Your task to perform on an android device: Open the stopwatch Image 0: 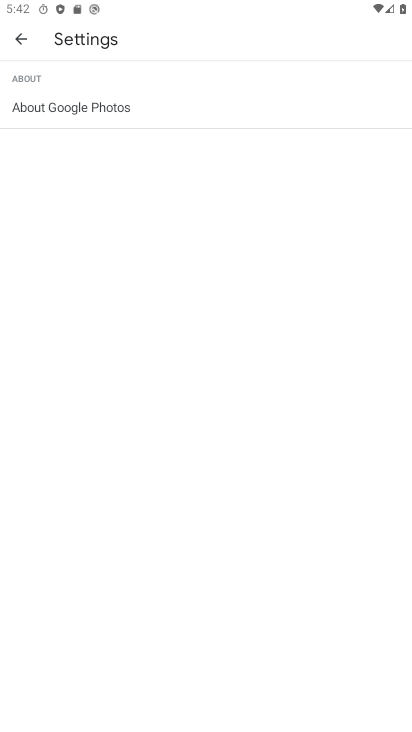
Step 0: press home button
Your task to perform on an android device: Open the stopwatch Image 1: 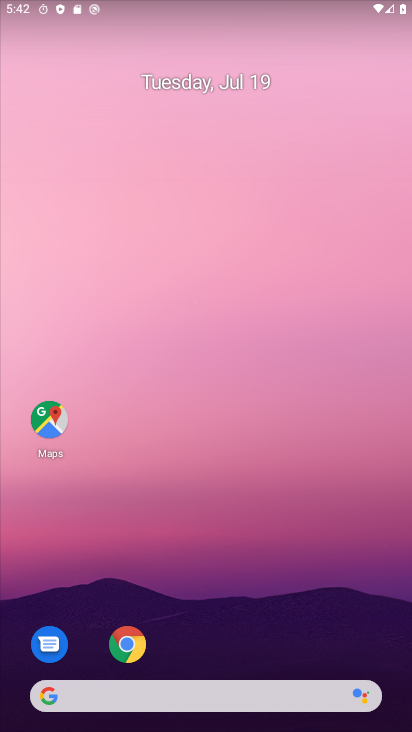
Step 1: drag from (207, 623) to (182, 32)
Your task to perform on an android device: Open the stopwatch Image 2: 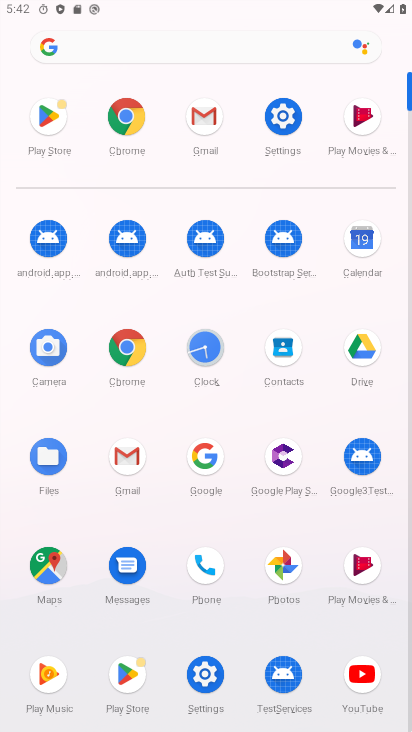
Step 2: click (209, 359)
Your task to perform on an android device: Open the stopwatch Image 3: 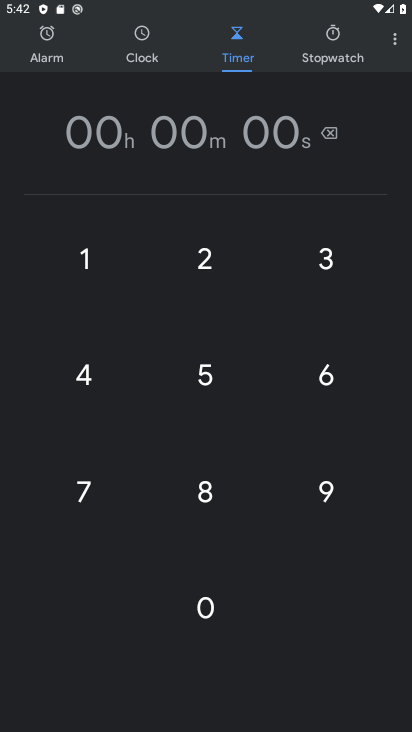
Step 3: click (339, 34)
Your task to perform on an android device: Open the stopwatch Image 4: 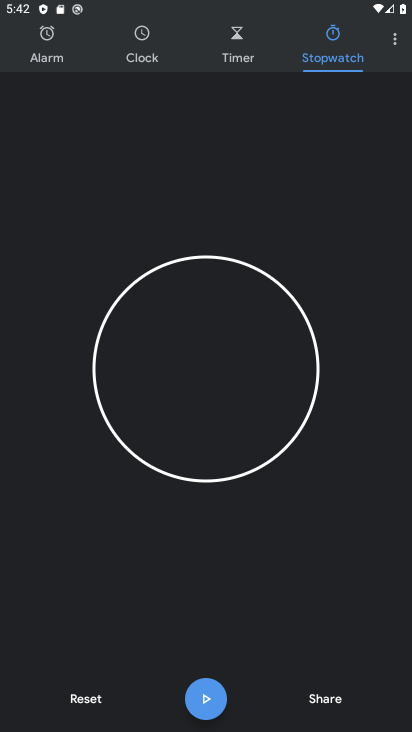
Step 4: task complete